Your task to perform on an android device: What is the recent news? Image 0: 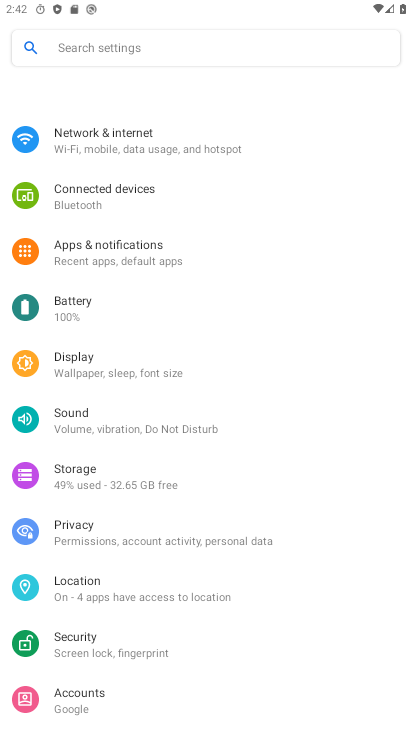
Step 0: press home button
Your task to perform on an android device: What is the recent news? Image 1: 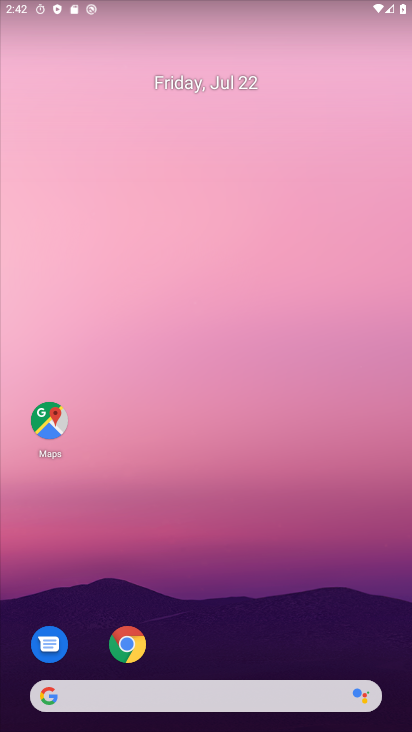
Step 1: click (47, 696)
Your task to perform on an android device: What is the recent news? Image 2: 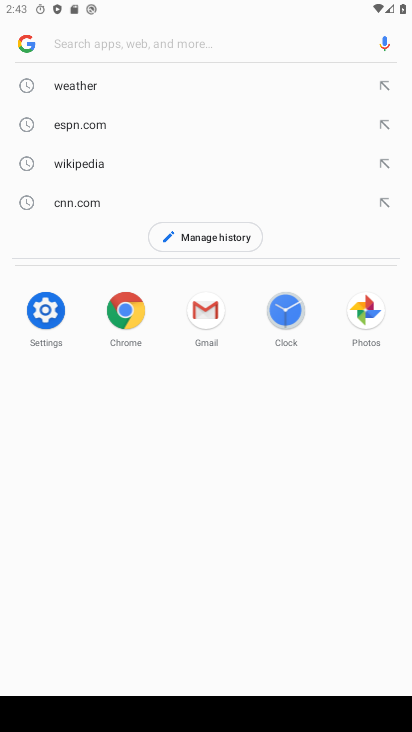
Step 2: type "recent news?"
Your task to perform on an android device: What is the recent news? Image 3: 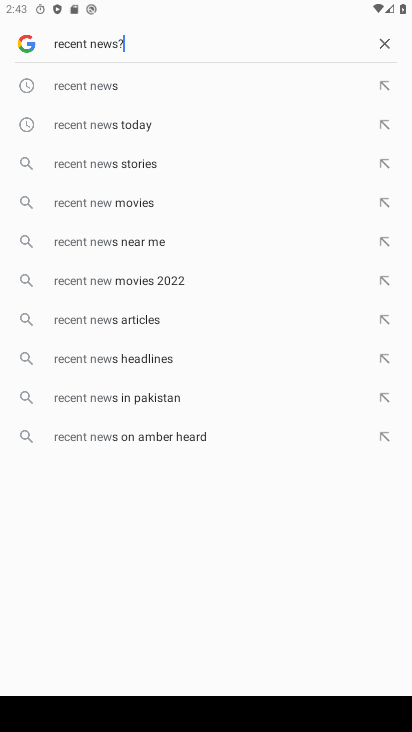
Step 3: press enter
Your task to perform on an android device: What is the recent news? Image 4: 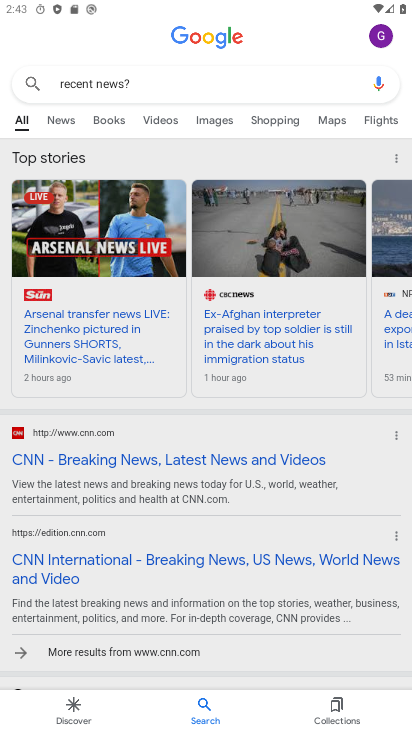
Step 4: task complete